Your task to perform on an android device: Search for "alienware aurora" on amazon, select the first entry, and add it to the cart. Image 0: 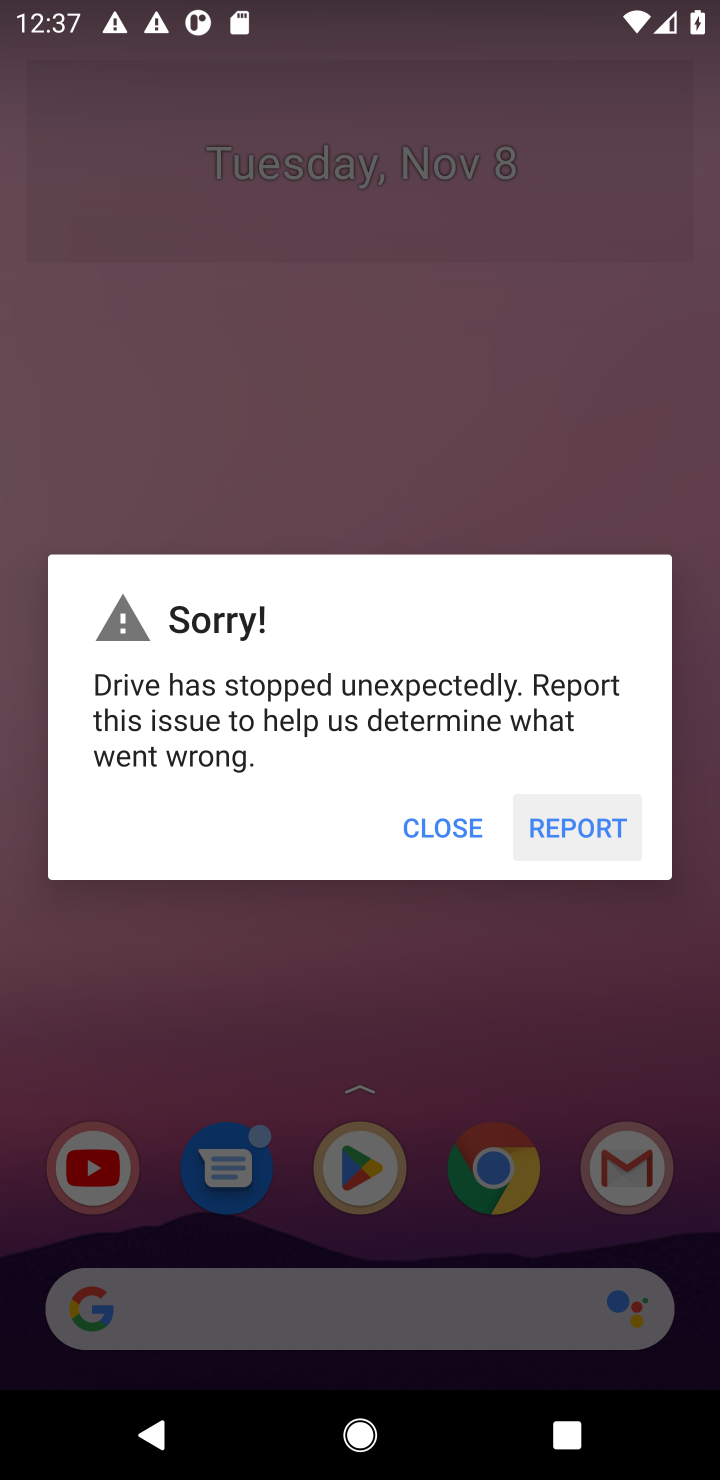
Step 0: click (433, 837)
Your task to perform on an android device: Search for "alienware aurora" on amazon, select the first entry, and add it to the cart. Image 1: 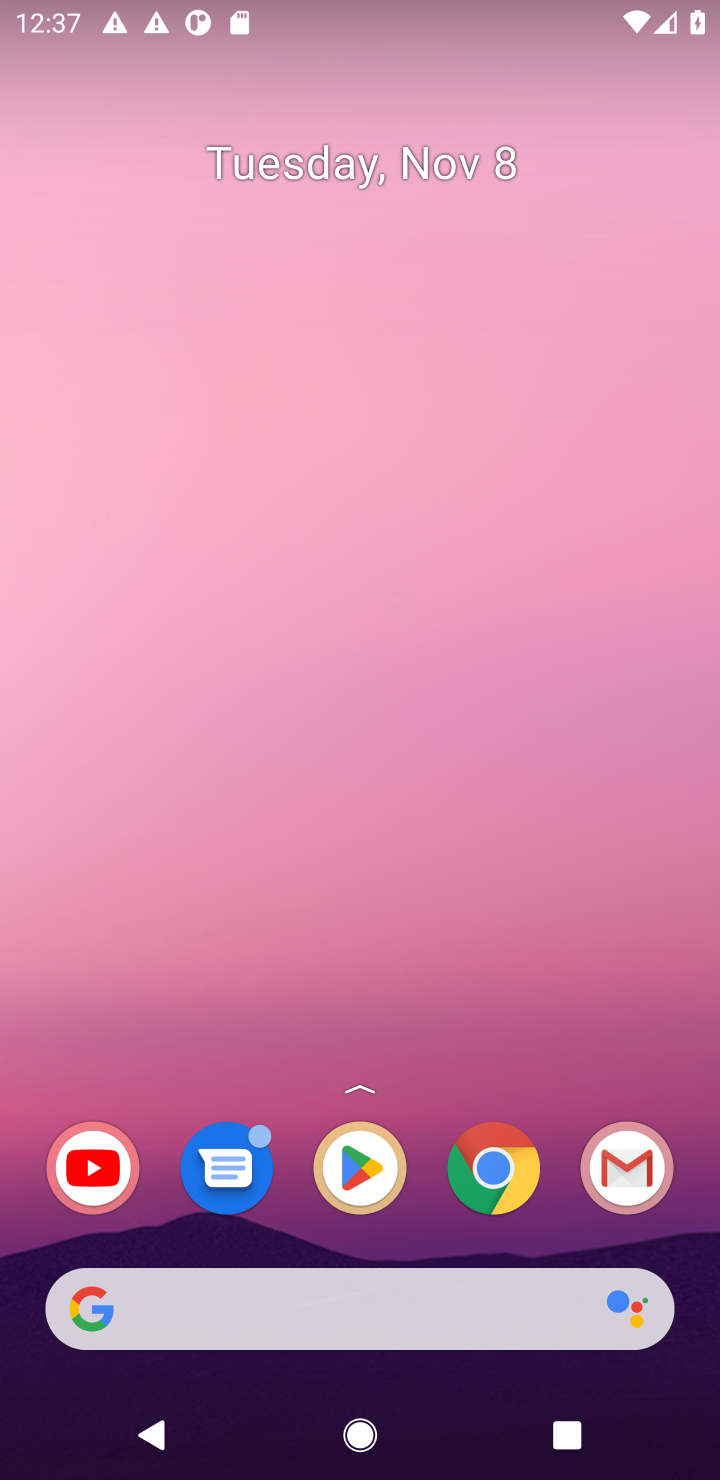
Step 1: drag from (284, 624) to (294, 119)
Your task to perform on an android device: Search for "alienware aurora" on amazon, select the first entry, and add it to the cart. Image 2: 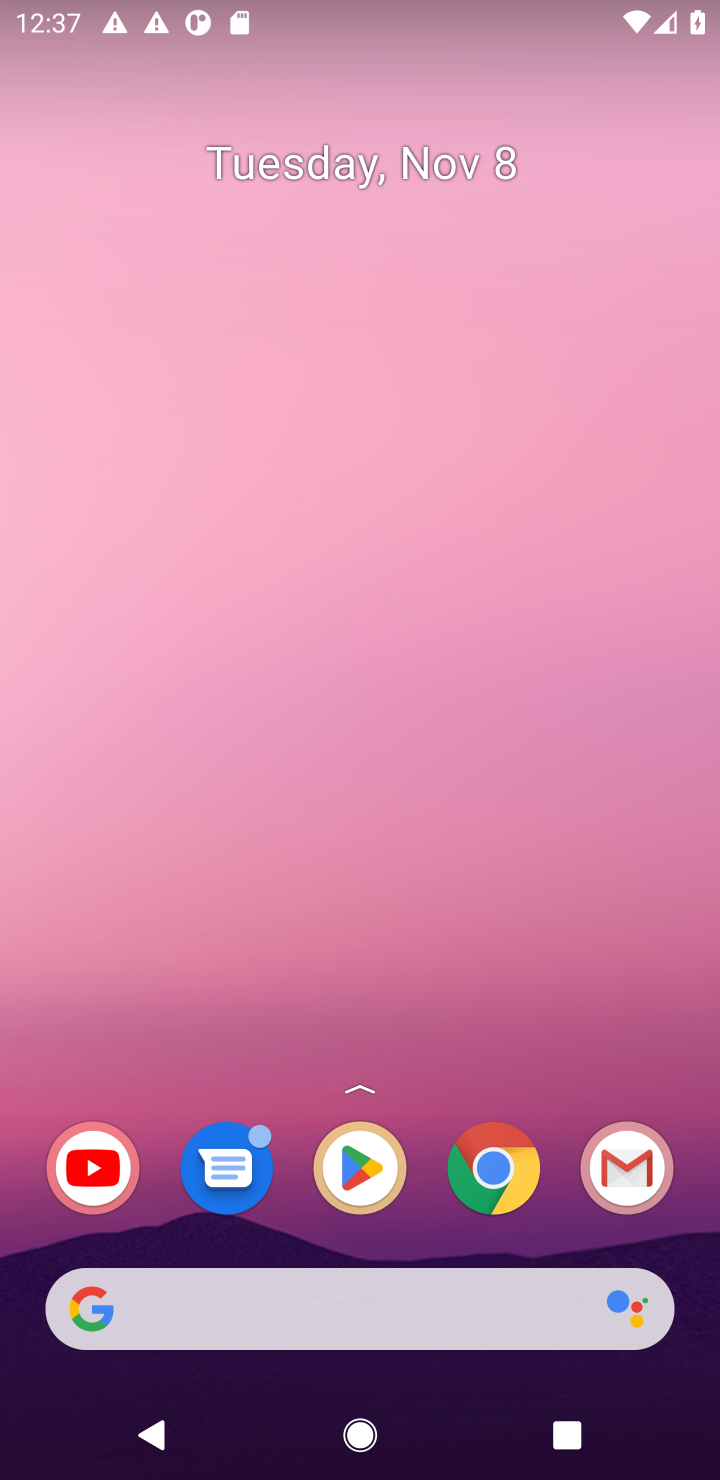
Step 2: click (516, 1165)
Your task to perform on an android device: Search for "alienware aurora" on amazon, select the first entry, and add it to the cart. Image 3: 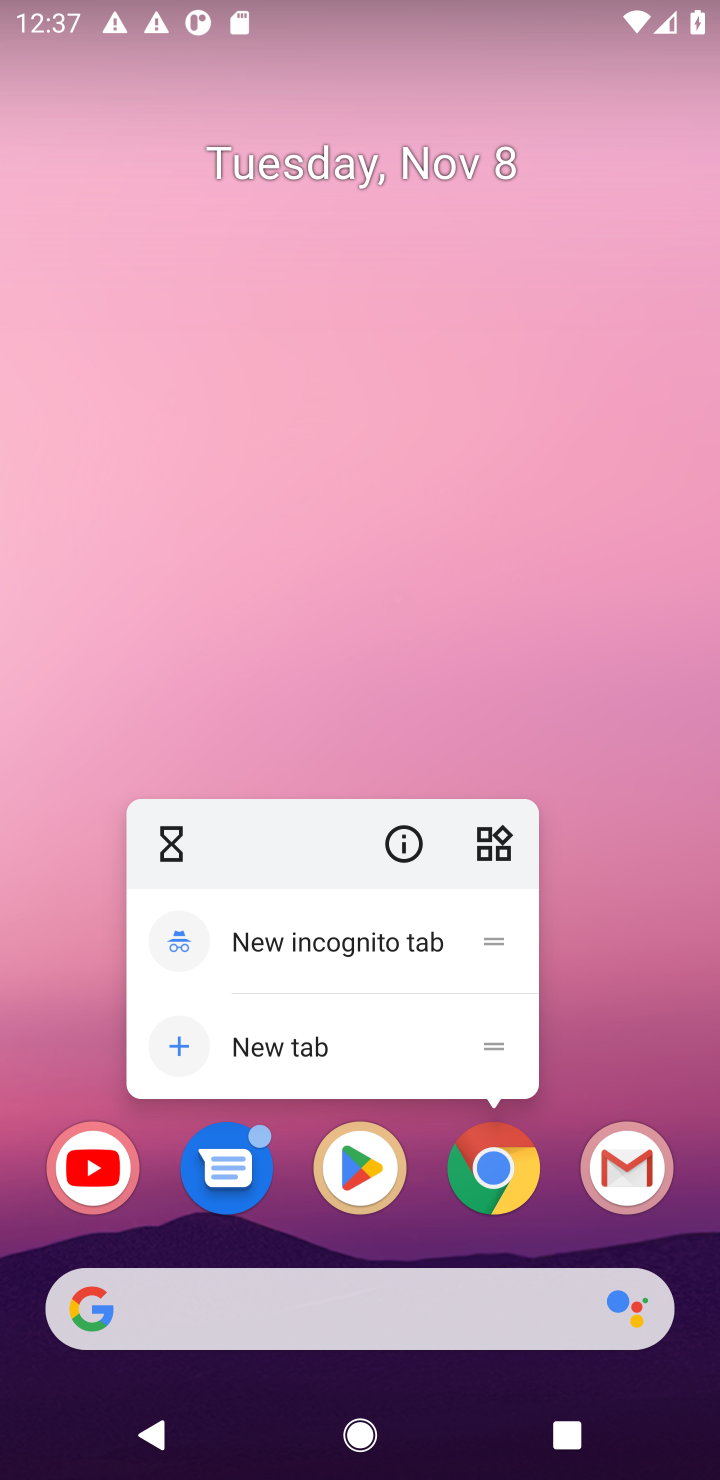
Step 3: click (516, 1165)
Your task to perform on an android device: Search for "alienware aurora" on amazon, select the first entry, and add it to the cart. Image 4: 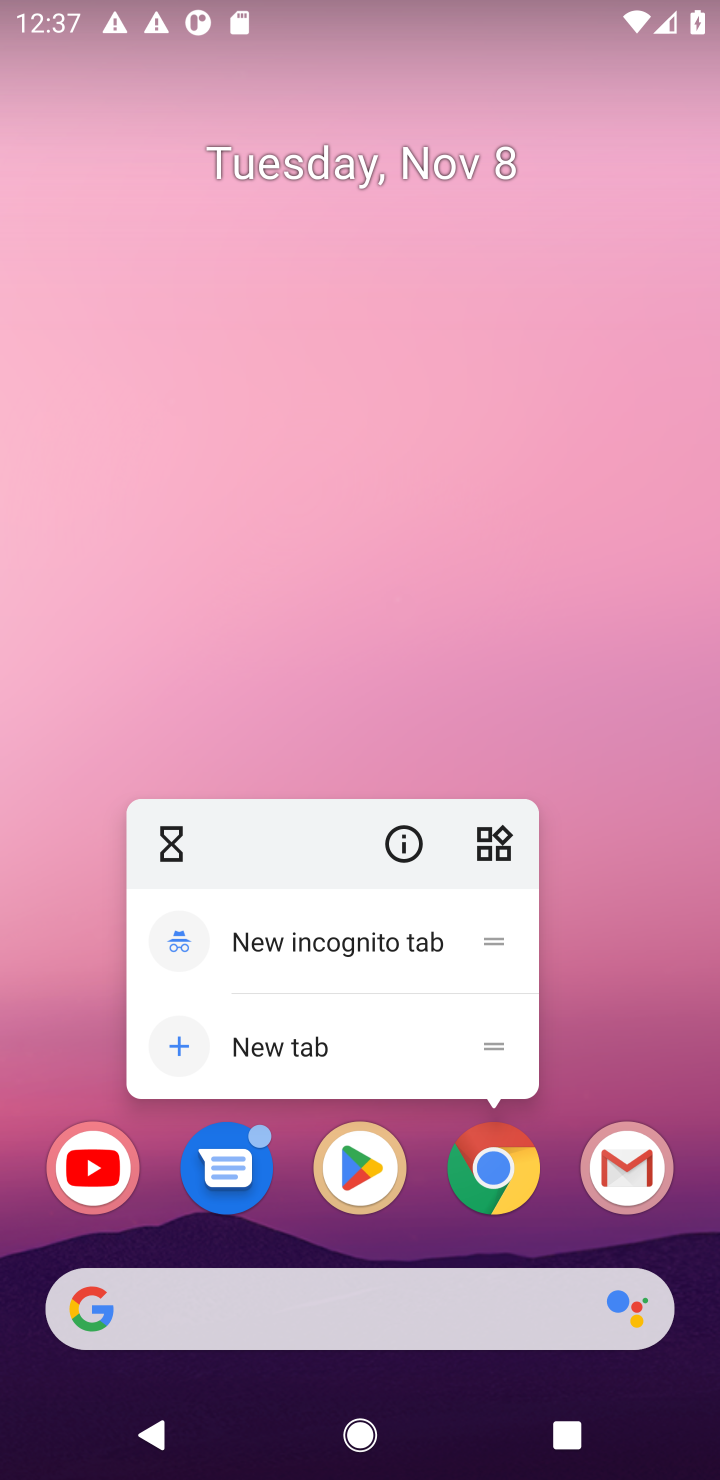
Step 4: click (516, 1165)
Your task to perform on an android device: Search for "alienware aurora" on amazon, select the first entry, and add it to the cart. Image 5: 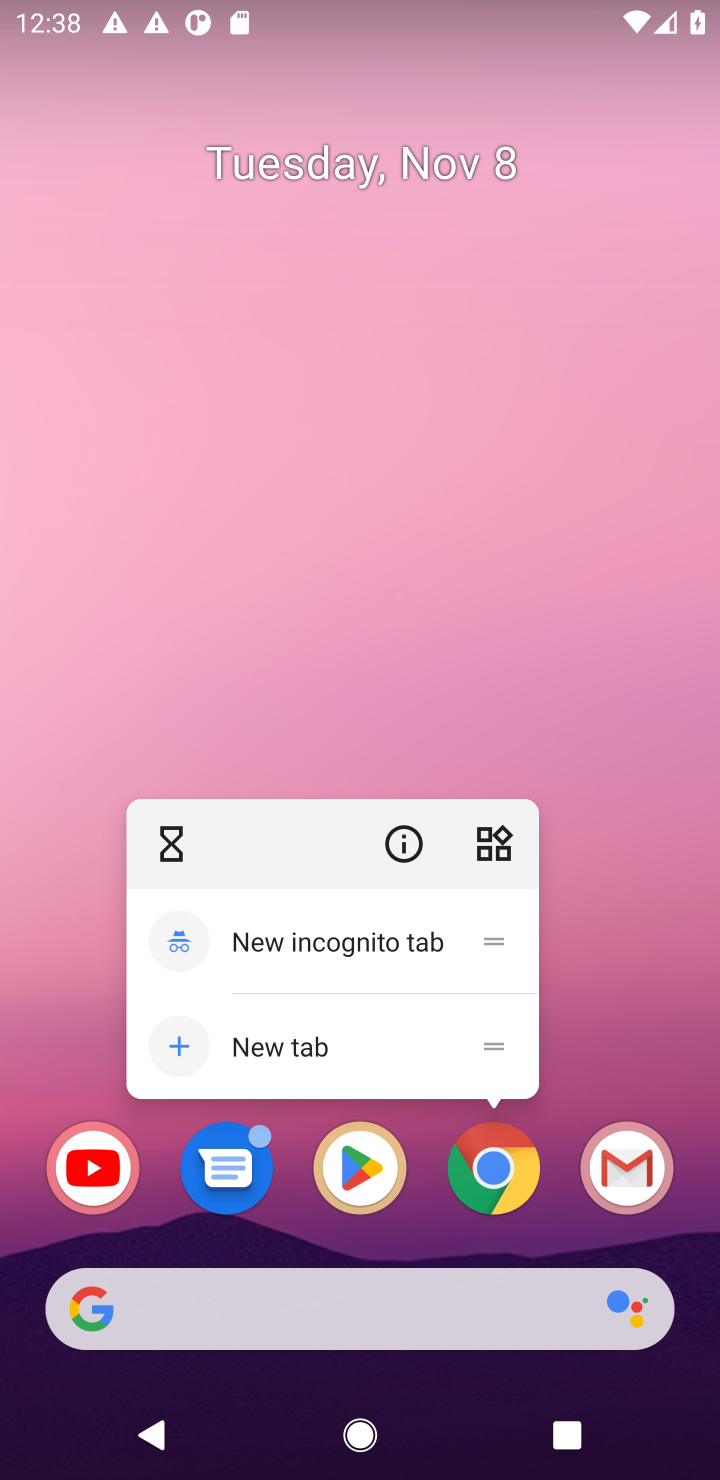
Step 5: click (516, 1165)
Your task to perform on an android device: Search for "alienware aurora" on amazon, select the first entry, and add it to the cart. Image 6: 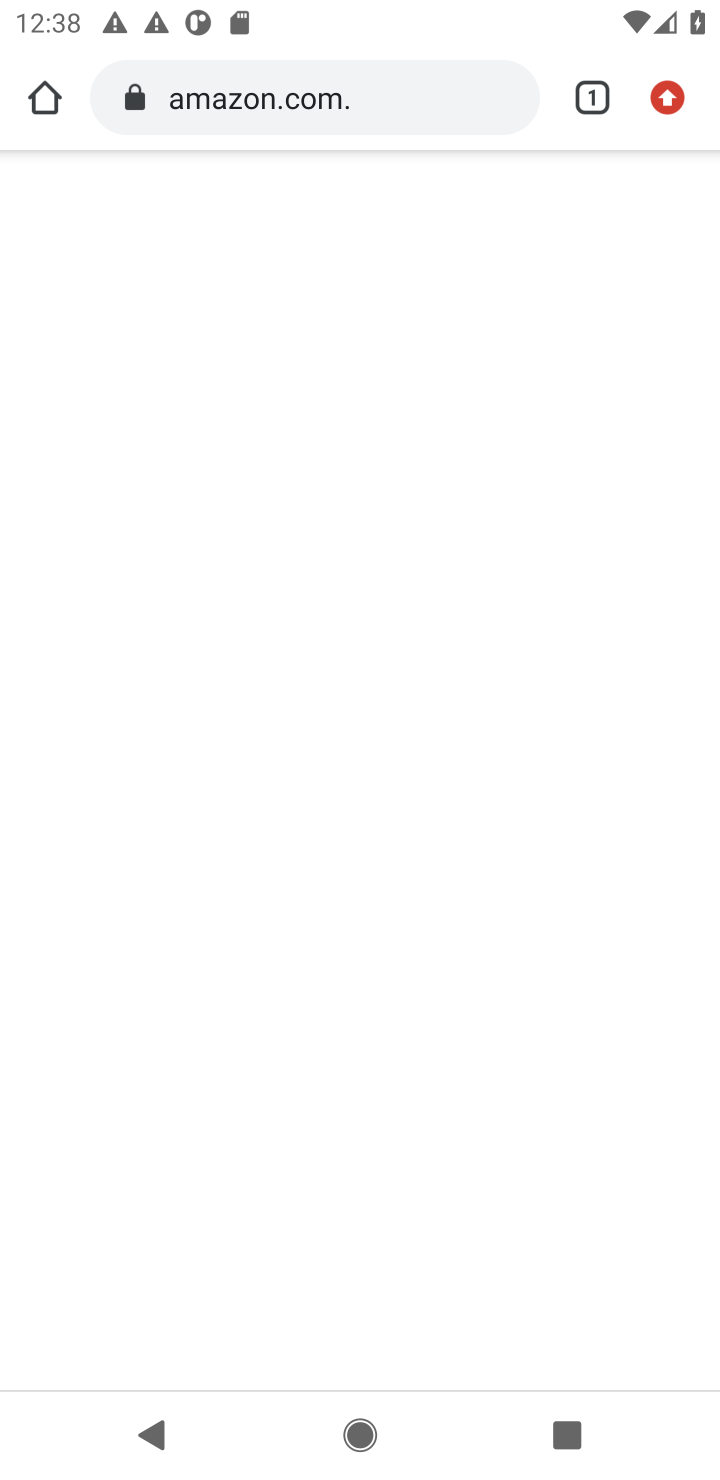
Step 6: task complete